Your task to perform on an android device: open a bookmark in the chrome app Image 0: 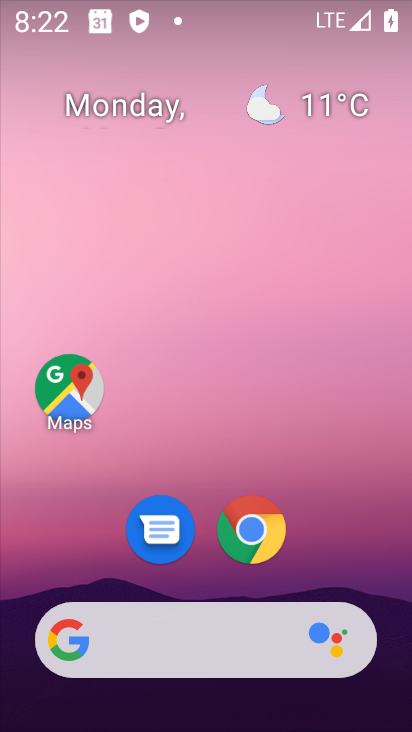
Step 0: click (241, 537)
Your task to perform on an android device: open a bookmark in the chrome app Image 1: 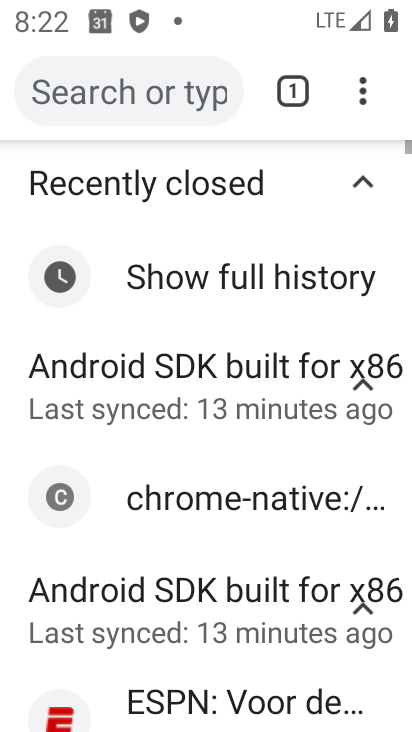
Step 1: click (371, 96)
Your task to perform on an android device: open a bookmark in the chrome app Image 2: 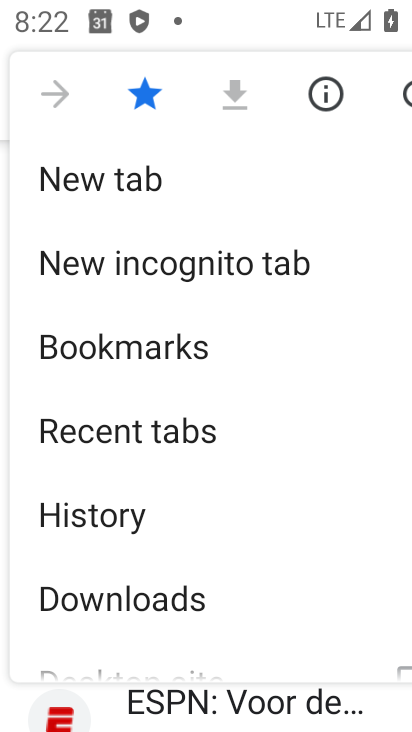
Step 2: drag from (126, 558) to (155, 286)
Your task to perform on an android device: open a bookmark in the chrome app Image 3: 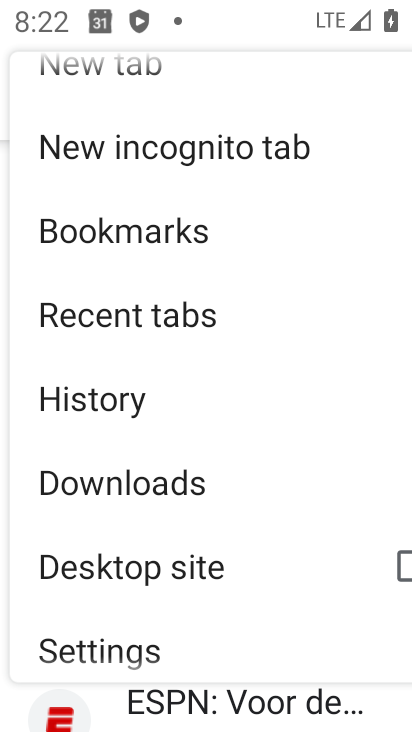
Step 3: click (128, 229)
Your task to perform on an android device: open a bookmark in the chrome app Image 4: 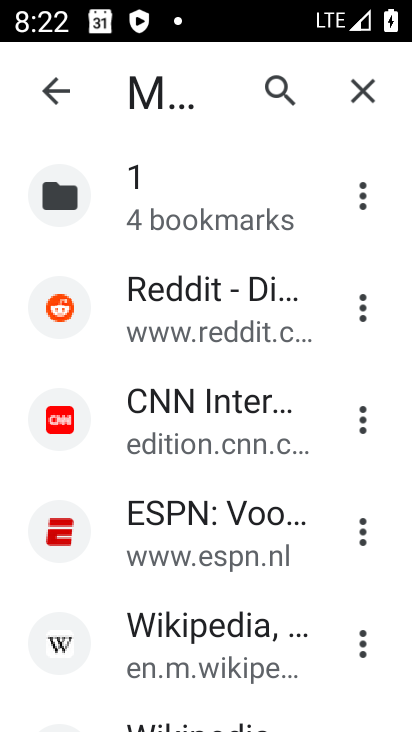
Step 4: click (161, 342)
Your task to perform on an android device: open a bookmark in the chrome app Image 5: 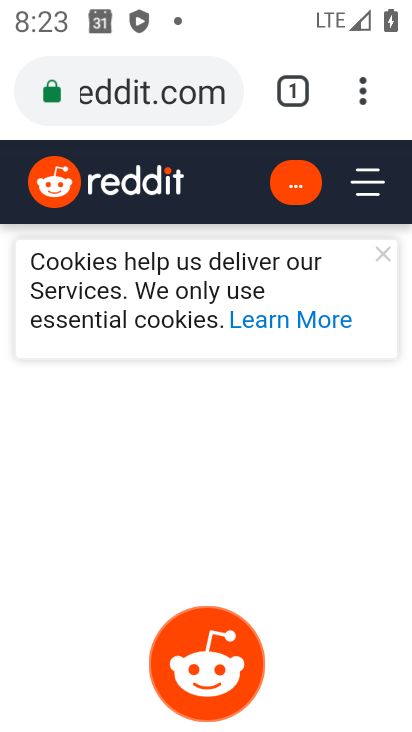
Step 5: drag from (329, 561) to (341, 255)
Your task to perform on an android device: open a bookmark in the chrome app Image 6: 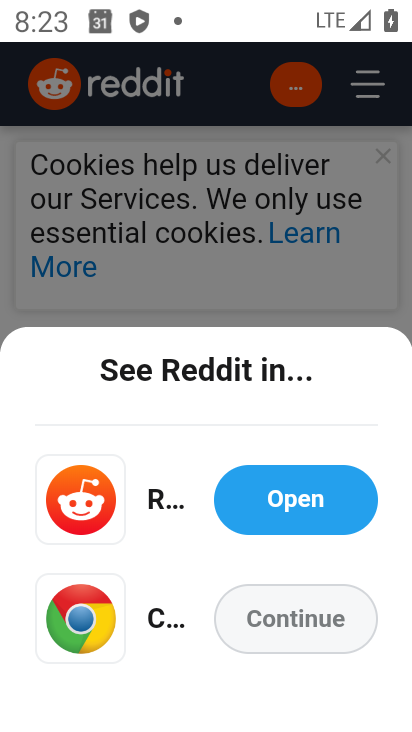
Step 6: click (279, 608)
Your task to perform on an android device: open a bookmark in the chrome app Image 7: 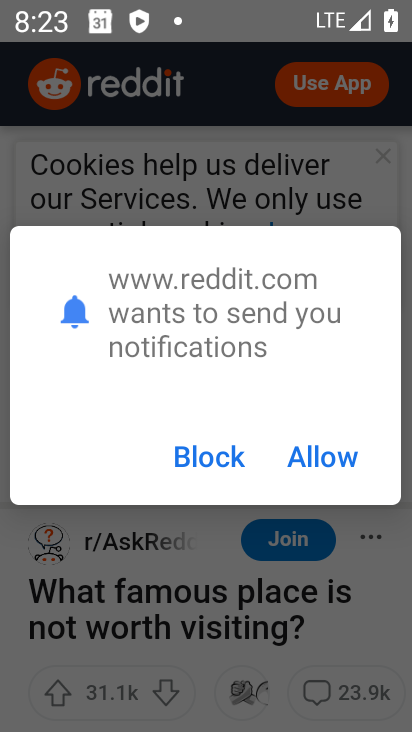
Step 7: task complete